Your task to perform on an android device: Go to battery settings Image 0: 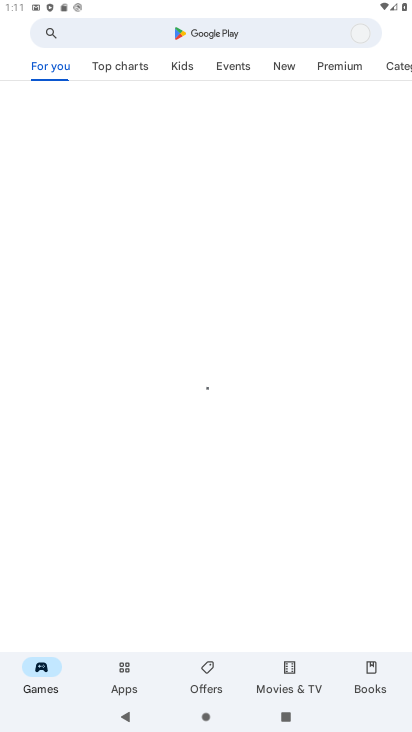
Step 0: press home button
Your task to perform on an android device: Go to battery settings Image 1: 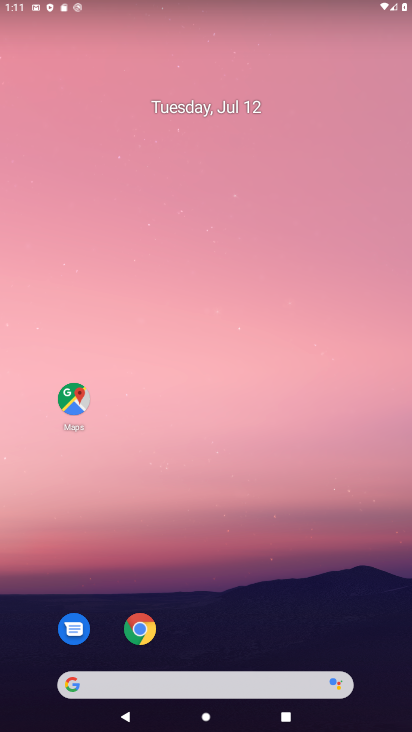
Step 1: drag from (297, 468) to (245, 129)
Your task to perform on an android device: Go to battery settings Image 2: 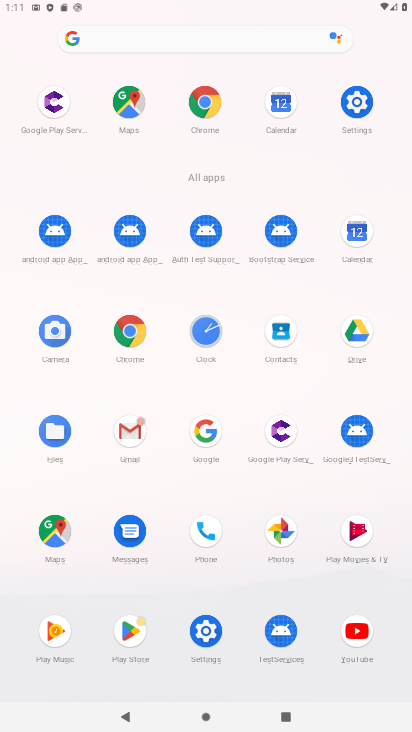
Step 2: click (353, 103)
Your task to perform on an android device: Go to battery settings Image 3: 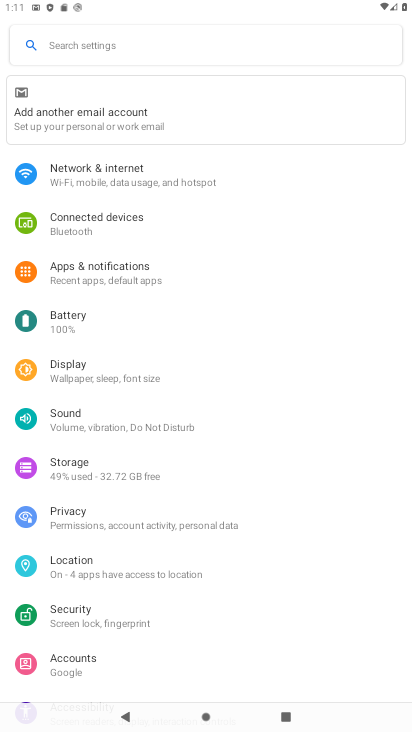
Step 3: click (89, 315)
Your task to perform on an android device: Go to battery settings Image 4: 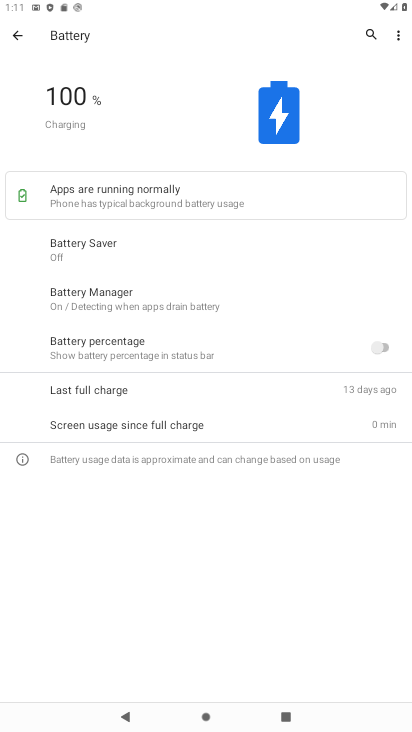
Step 4: task complete